Your task to perform on an android device: Open the map Image 0: 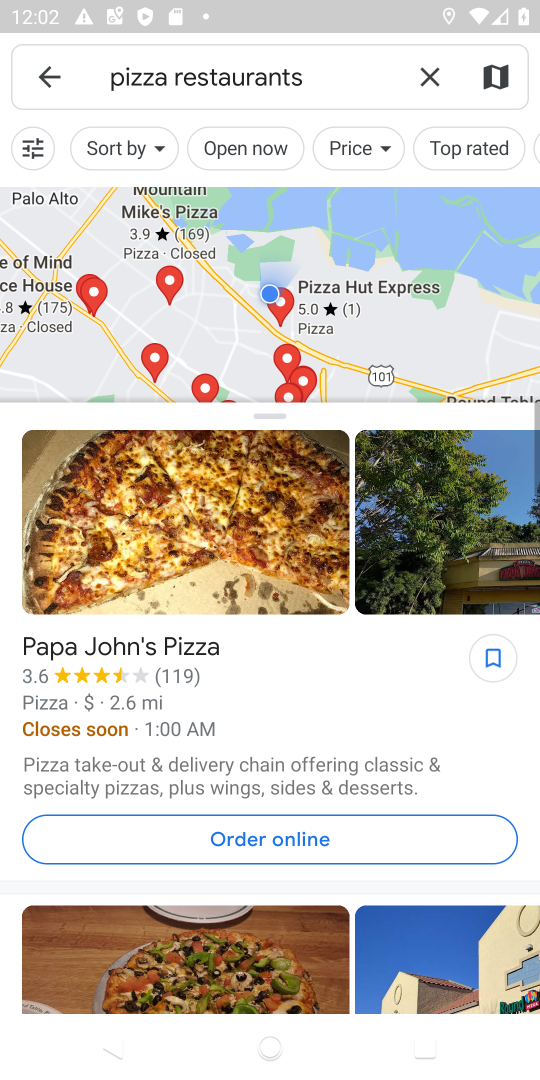
Step 0: press home button
Your task to perform on an android device: Open the map Image 1: 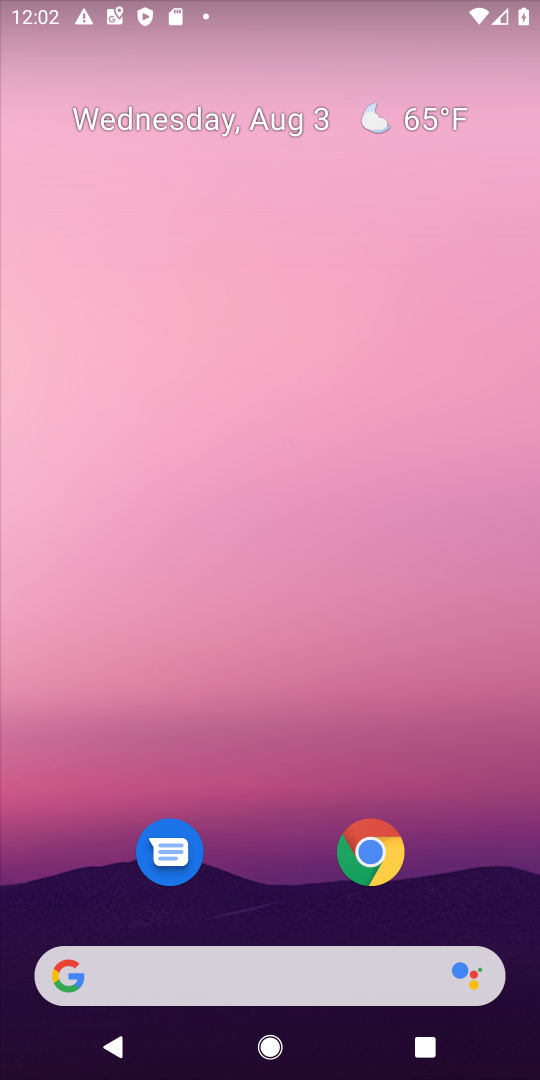
Step 1: drag from (375, 471) to (275, 109)
Your task to perform on an android device: Open the map Image 2: 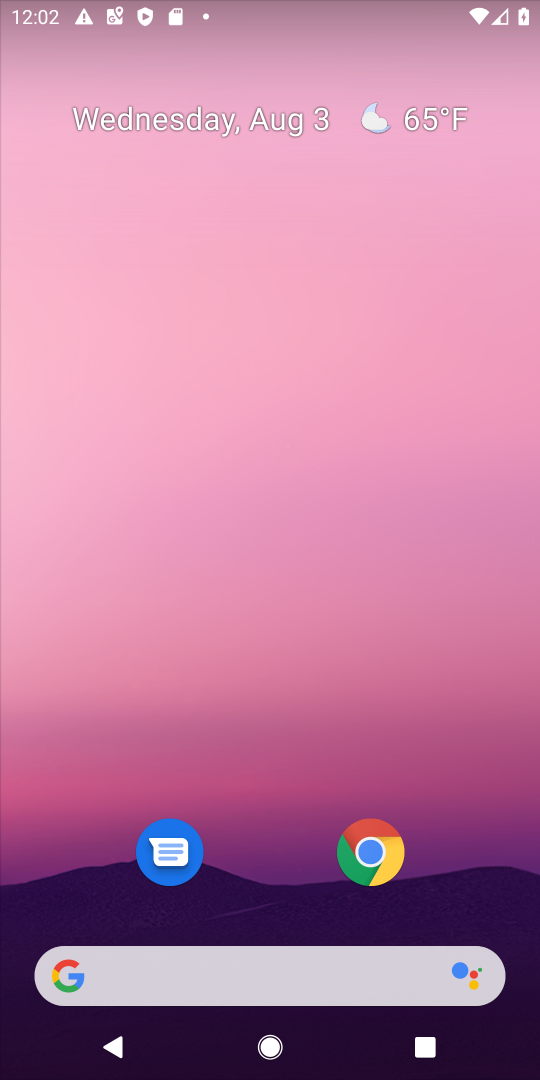
Step 2: drag from (473, 883) to (284, 91)
Your task to perform on an android device: Open the map Image 3: 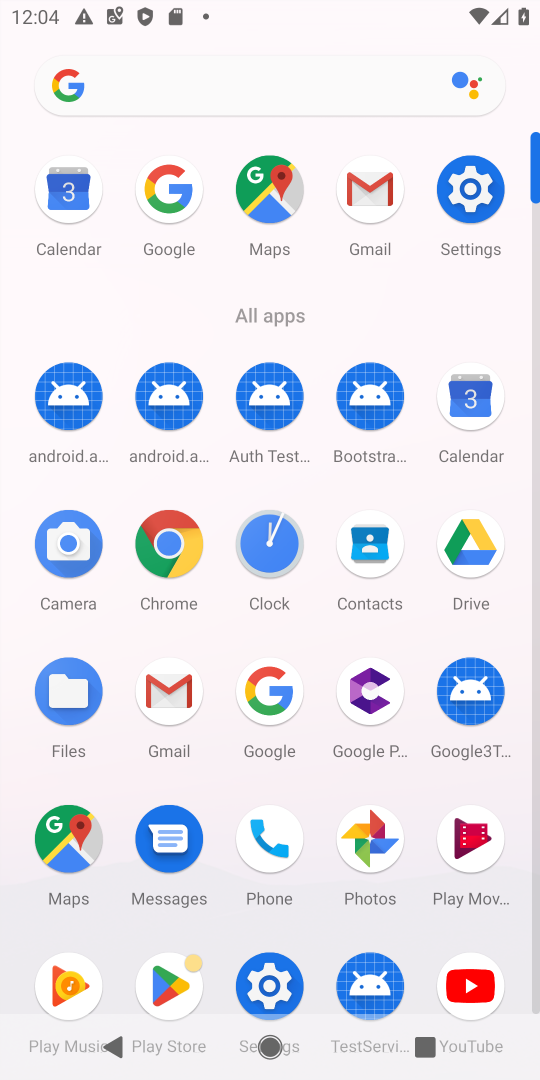
Step 3: click (65, 848)
Your task to perform on an android device: Open the map Image 4: 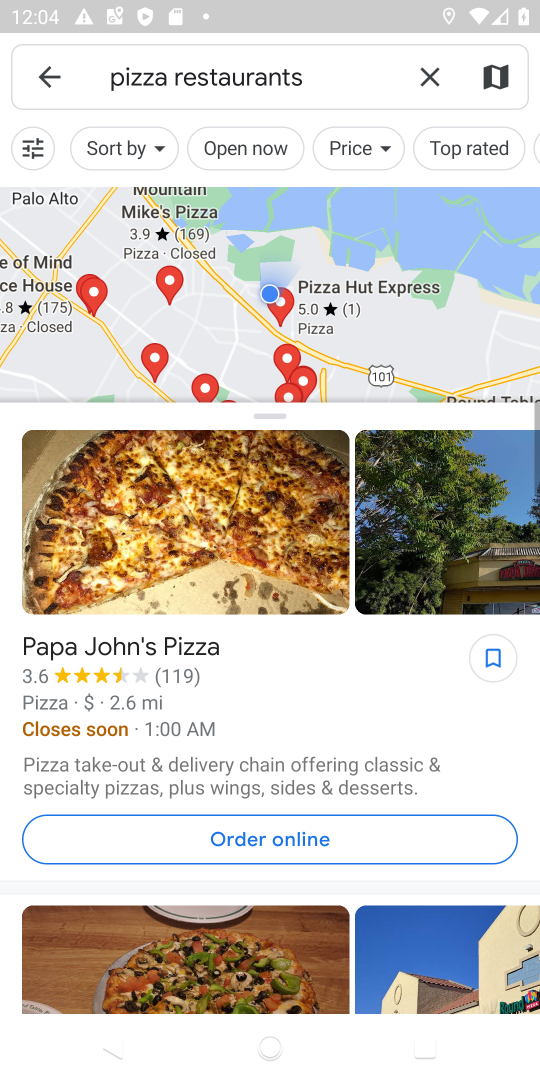
Step 4: task complete